Your task to perform on an android device: set an alarm Image 0: 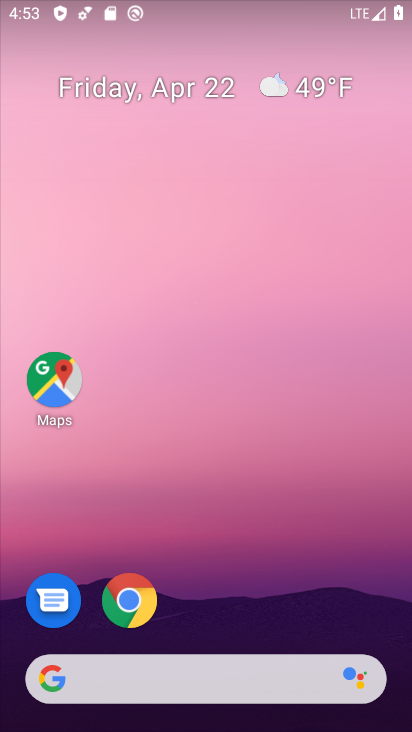
Step 0: drag from (228, 617) to (304, 0)
Your task to perform on an android device: set an alarm Image 1: 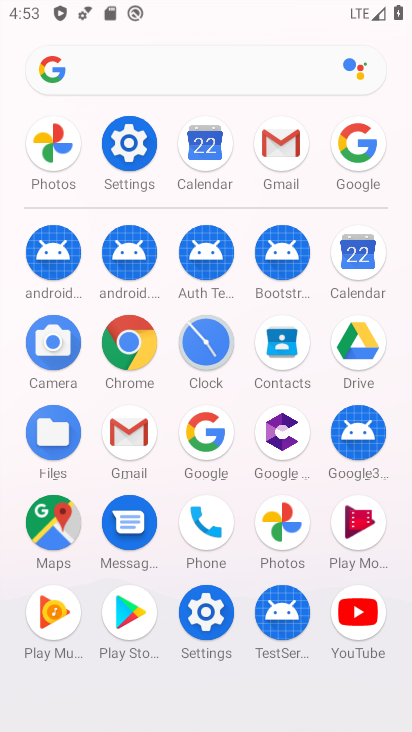
Step 1: click (210, 341)
Your task to perform on an android device: set an alarm Image 2: 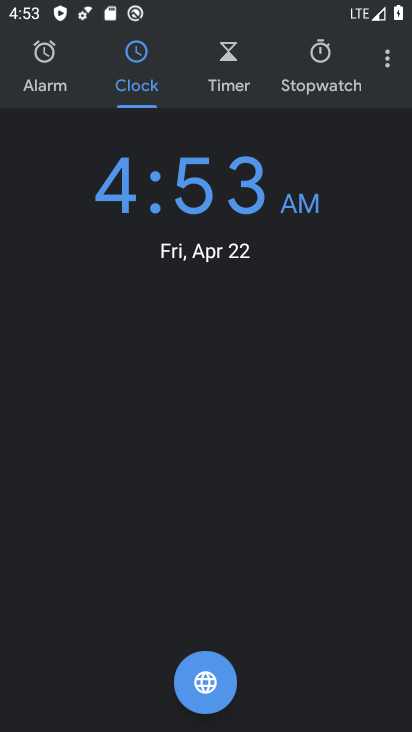
Step 2: click (42, 47)
Your task to perform on an android device: set an alarm Image 3: 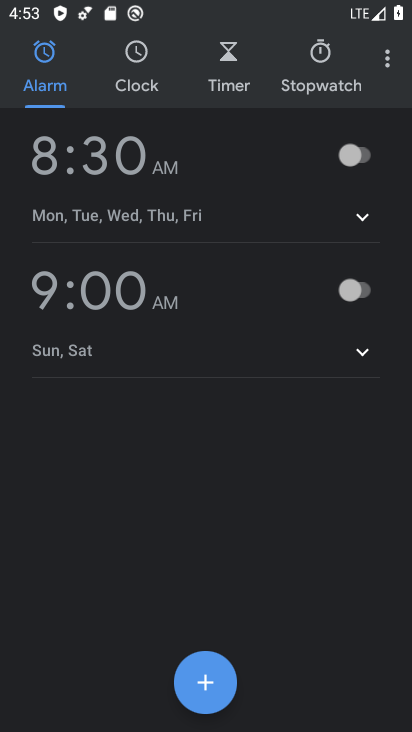
Step 3: click (207, 669)
Your task to perform on an android device: set an alarm Image 4: 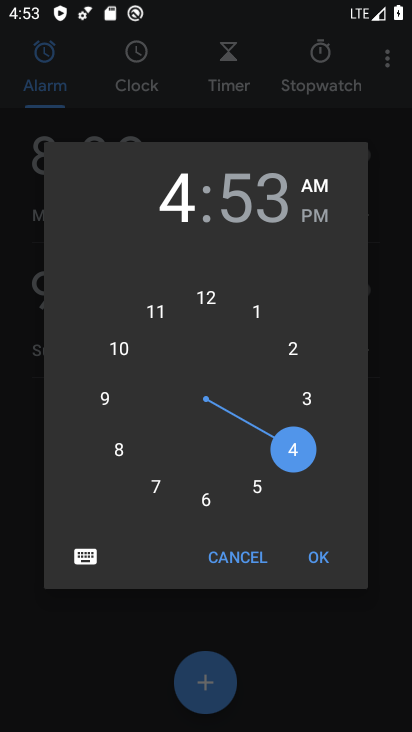
Step 4: click (154, 481)
Your task to perform on an android device: set an alarm Image 5: 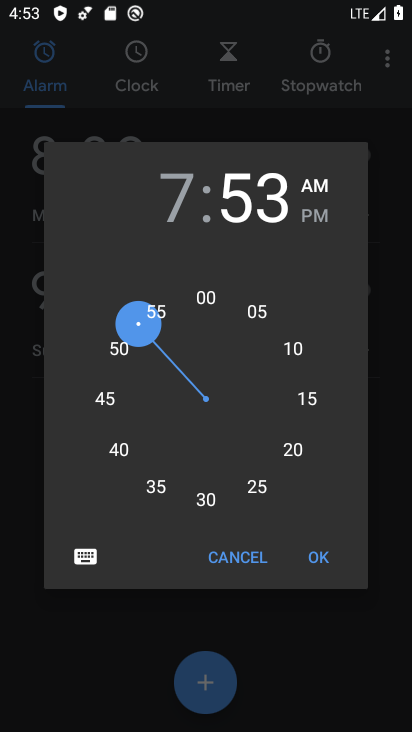
Step 5: click (155, 477)
Your task to perform on an android device: set an alarm Image 6: 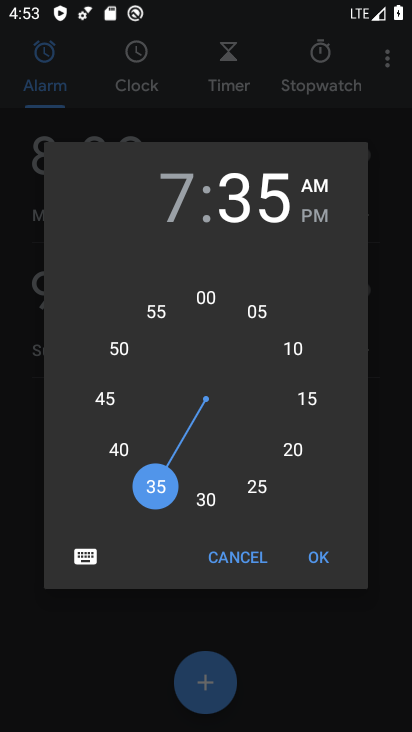
Step 6: click (311, 223)
Your task to perform on an android device: set an alarm Image 7: 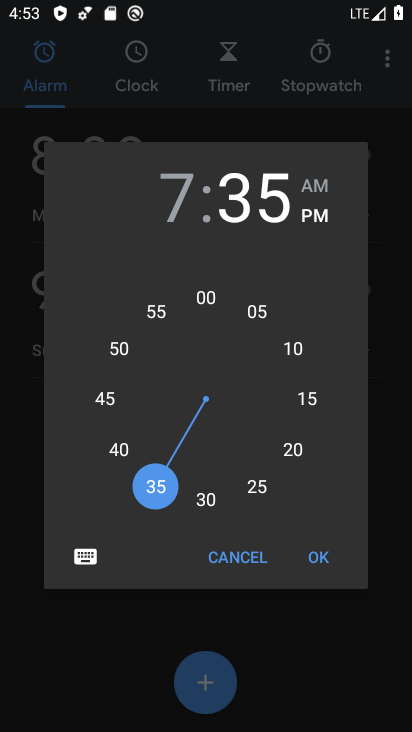
Step 7: click (316, 559)
Your task to perform on an android device: set an alarm Image 8: 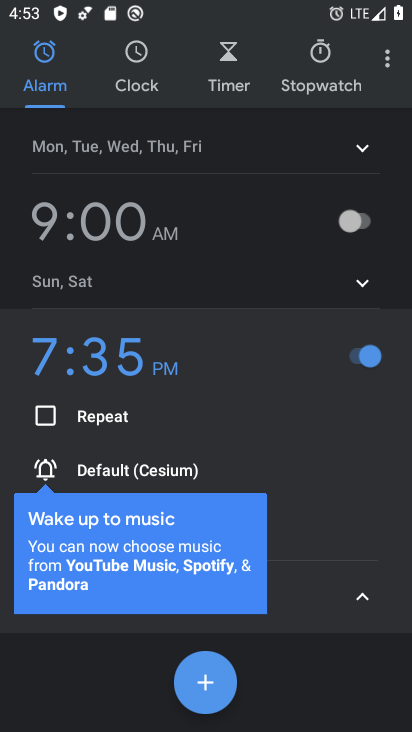
Step 8: click (363, 601)
Your task to perform on an android device: set an alarm Image 9: 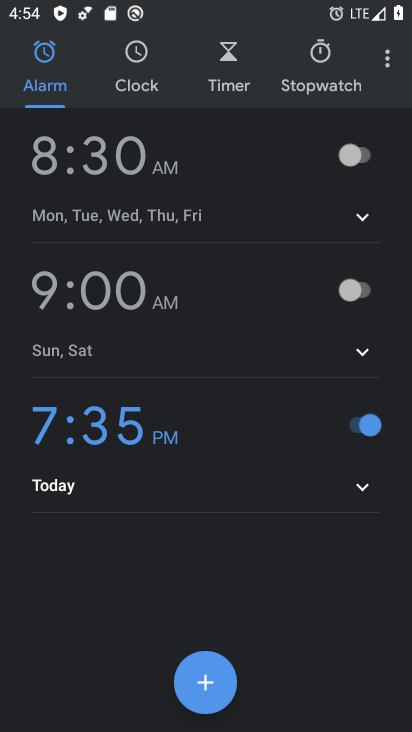
Step 9: task complete